Your task to perform on an android device: turn on sleep mode Image 0: 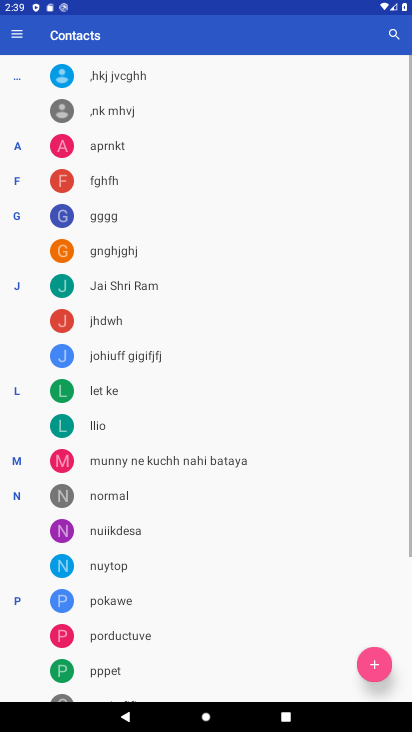
Step 0: press home button
Your task to perform on an android device: turn on sleep mode Image 1: 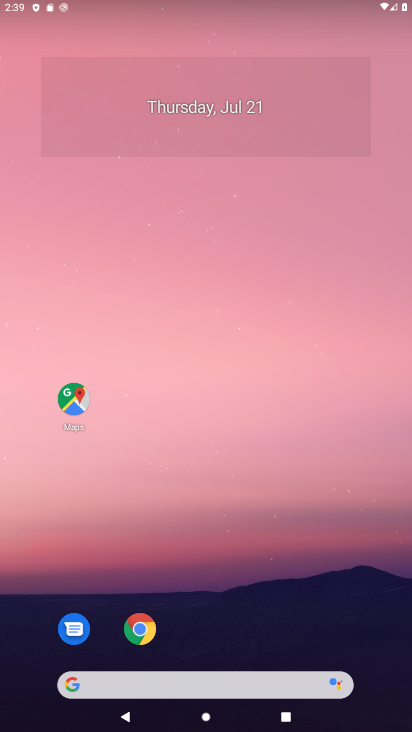
Step 1: drag from (201, 654) to (201, 114)
Your task to perform on an android device: turn on sleep mode Image 2: 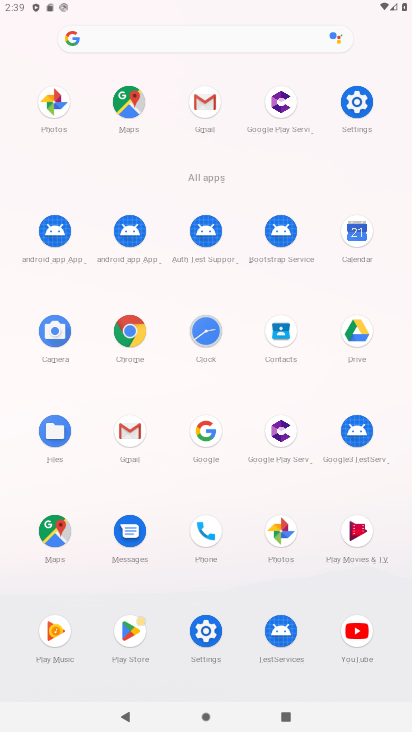
Step 2: click (352, 100)
Your task to perform on an android device: turn on sleep mode Image 3: 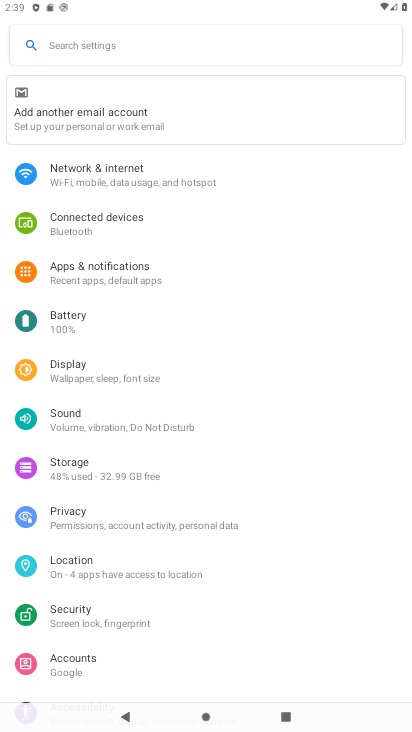
Step 3: click (131, 374)
Your task to perform on an android device: turn on sleep mode Image 4: 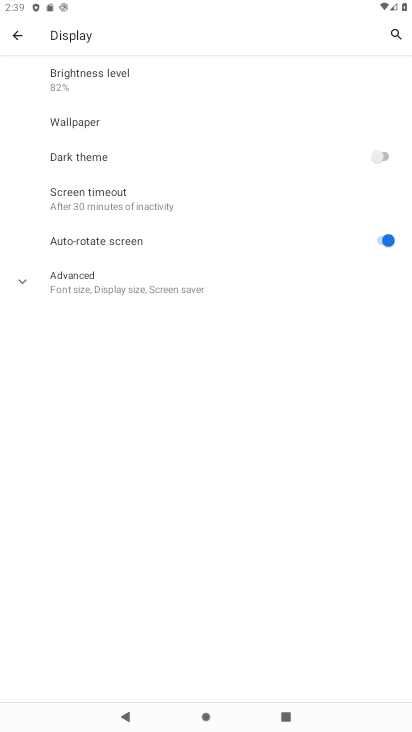
Step 4: click (112, 196)
Your task to perform on an android device: turn on sleep mode Image 5: 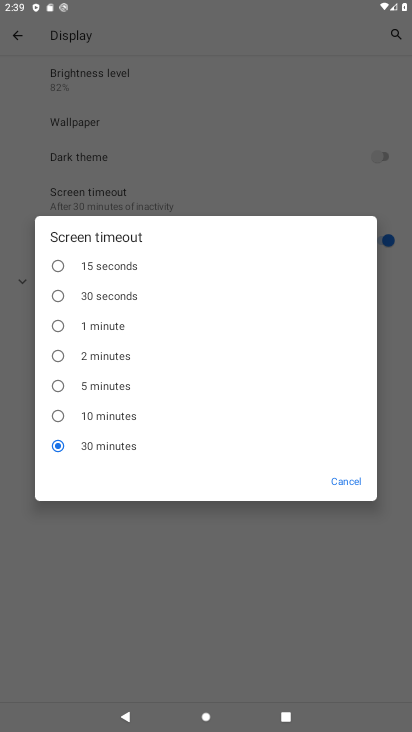
Step 5: task complete